Your task to perform on an android device: Go to wifi settings Image 0: 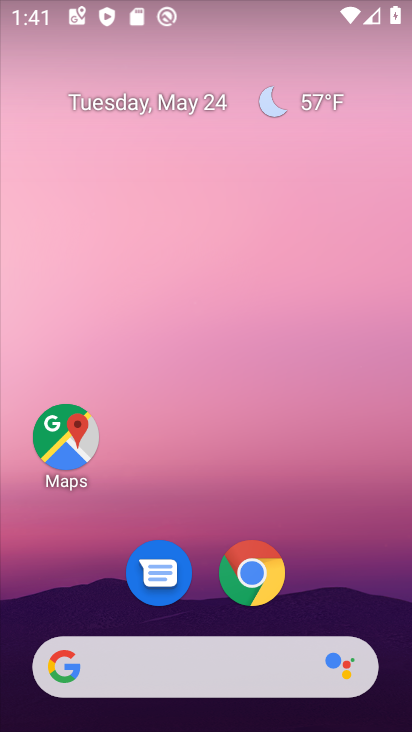
Step 0: drag from (371, 602) to (372, 135)
Your task to perform on an android device: Go to wifi settings Image 1: 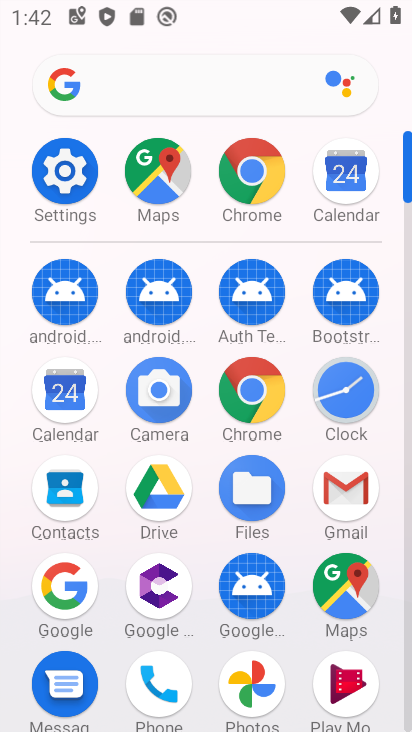
Step 1: click (69, 184)
Your task to perform on an android device: Go to wifi settings Image 2: 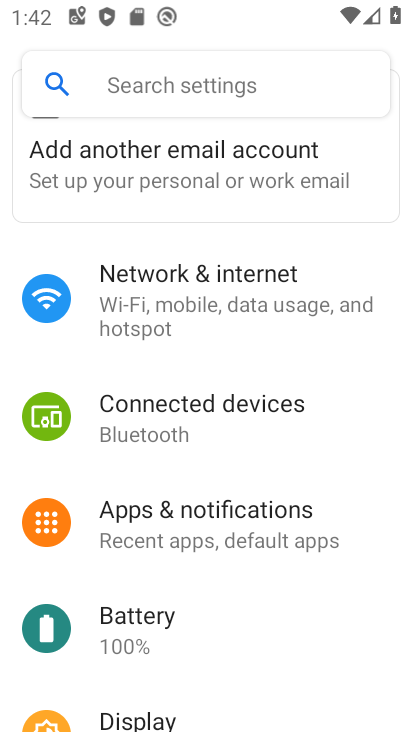
Step 2: click (273, 330)
Your task to perform on an android device: Go to wifi settings Image 3: 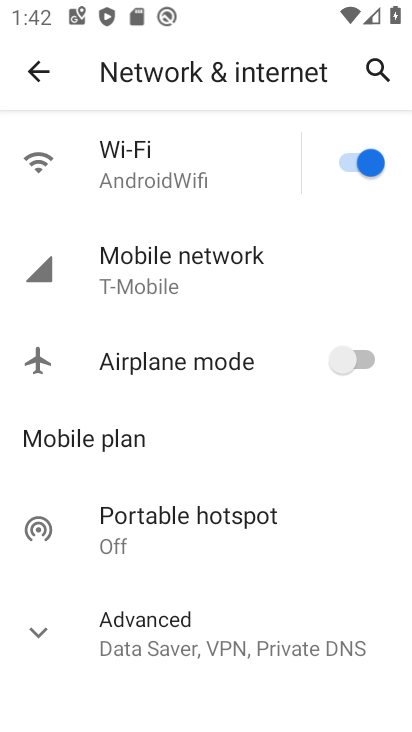
Step 3: click (141, 173)
Your task to perform on an android device: Go to wifi settings Image 4: 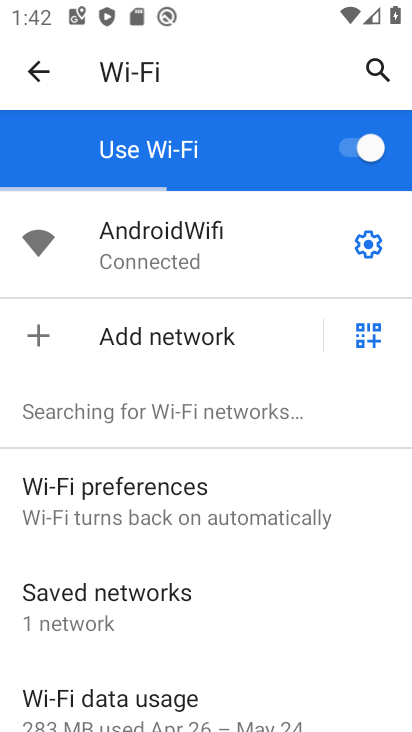
Step 4: click (360, 251)
Your task to perform on an android device: Go to wifi settings Image 5: 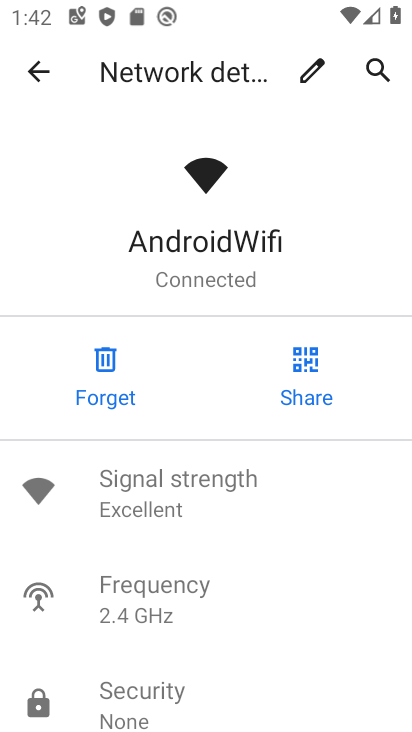
Step 5: task complete